Your task to perform on an android device: turn off javascript in the chrome app Image 0: 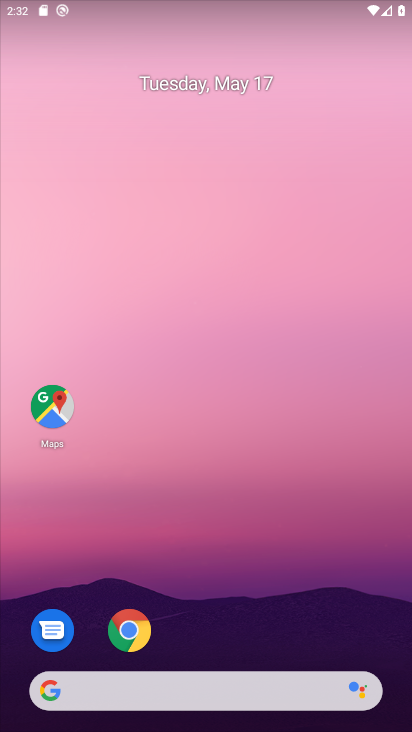
Step 0: click (130, 621)
Your task to perform on an android device: turn off javascript in the chrome app Image 1: 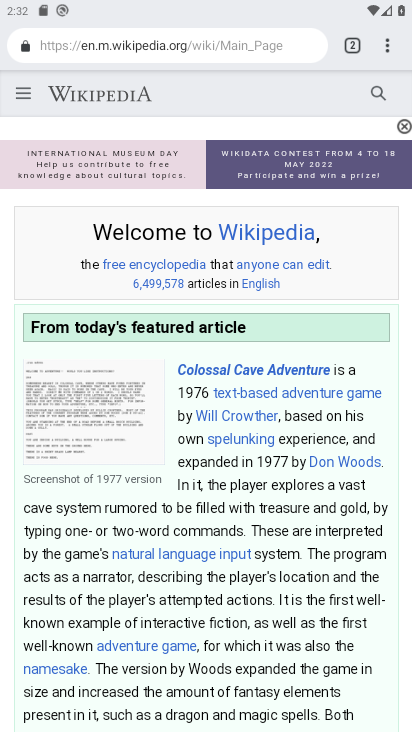
Step 1: click (387, 44)
Your task to perform on an android device: turn off javascript in the chrome app Image 2: 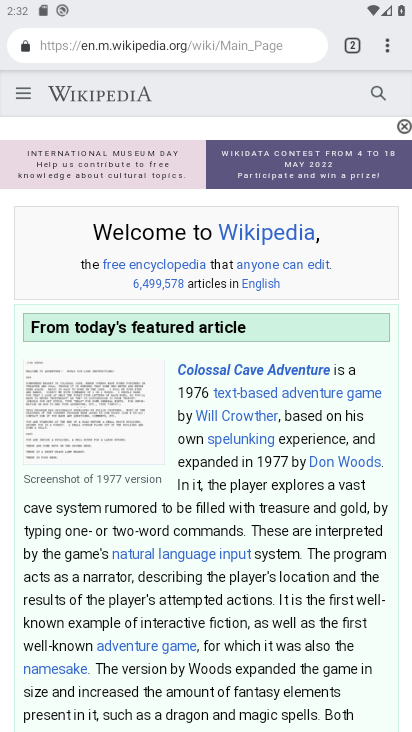
Step 2: click (402, 44)
Your task to perform on an android device: turn off javascript in the chrome app Image 3: 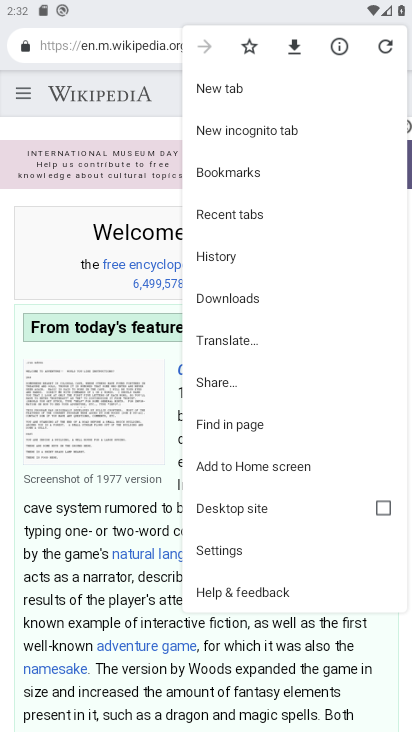
Step 3: click (244, 552)
Your task to perform on an android device: turn off javascript in the chrome app Image 4: 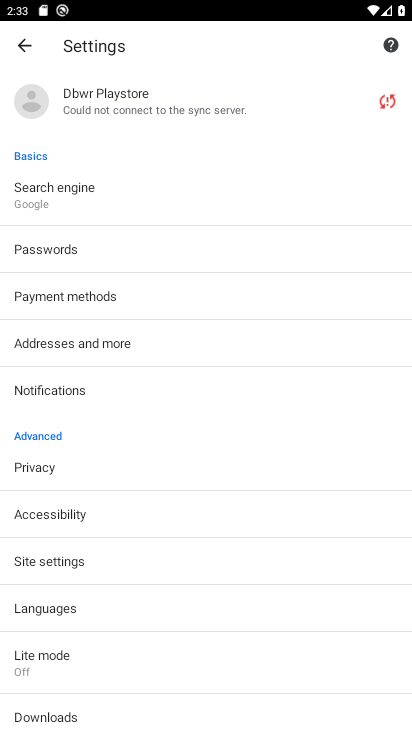
Step 4: click (44, 563)
Your task to perform on an android device: turn off javascript in the chrome app Image 5: 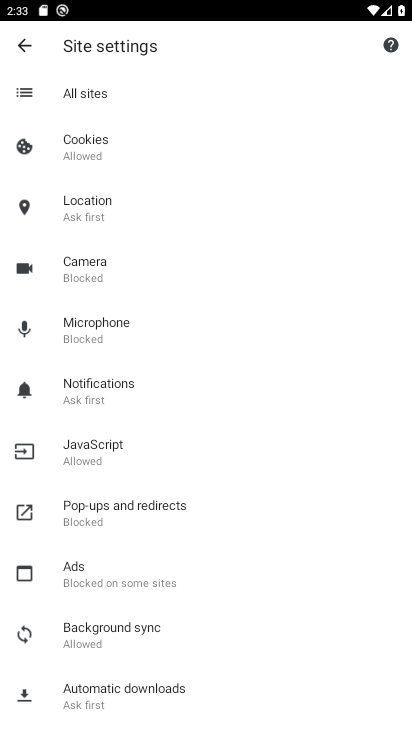
Step 5: click (84, 457)
Your task to perform on an android device: turn off javascript in the chrome app Image 6: 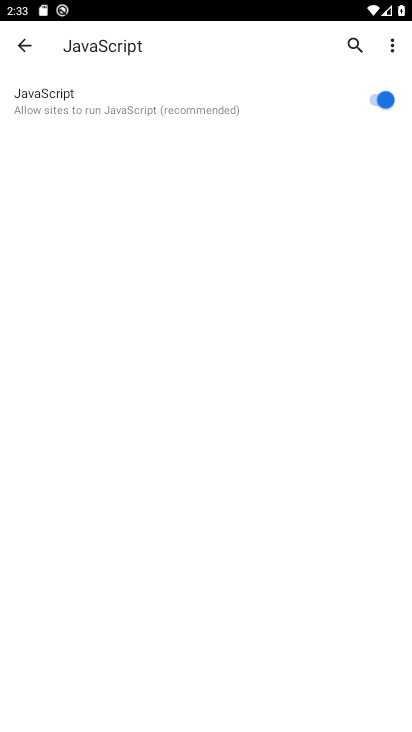
Step 6: click (371, 99)
Your task to perform on an android device: turn off javascript in the chrome app Image 7: 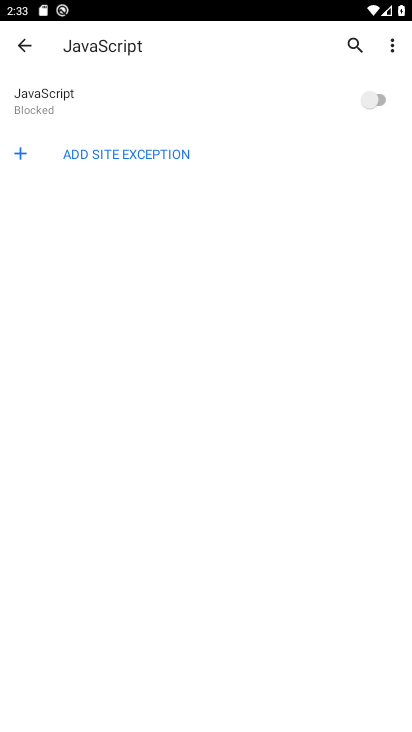
Step 7: task complete